Your task to perform on an android device: Go to ESPN.com Image 0: 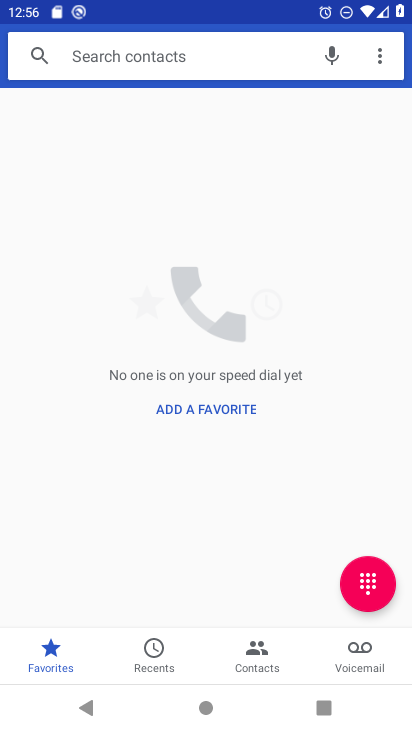
Step 0: press home button
Your task to perform on an android device: Go to ESPN.com Image 1: 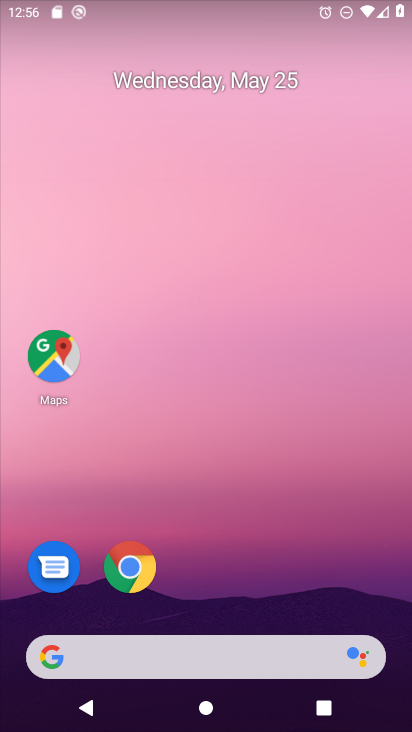
Step 1: click (131, 566)
Your task to perform on an android device: Go to ESPN.com Image 2: 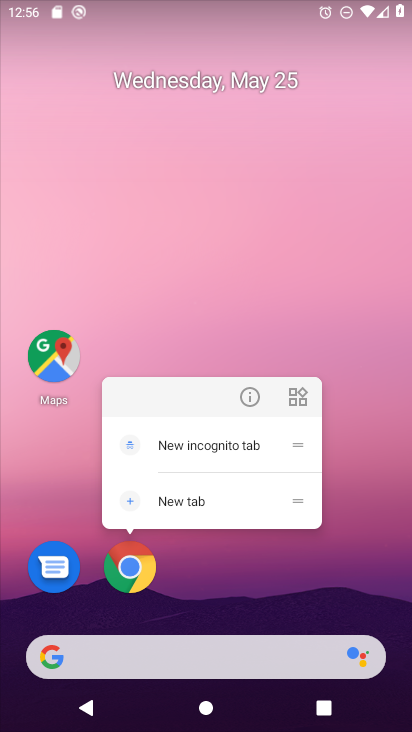
Step 2: click (126, 568)
Your task to perform on an android device: Go to ESPN.com Image 3: 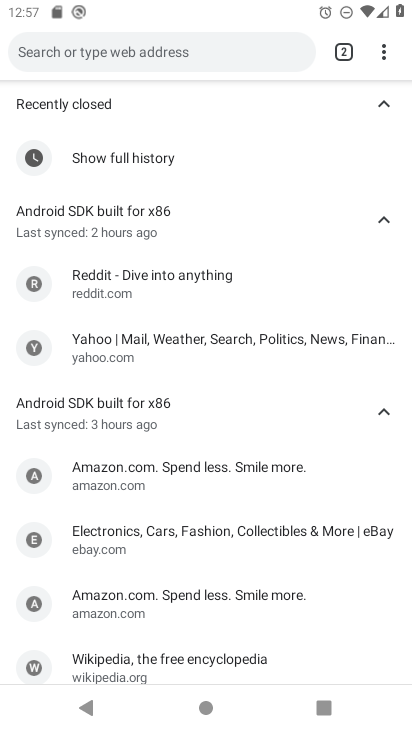
Step 3: click (178, 57)
Your task to perform on an android device: Go to ESPN.com Image 4: 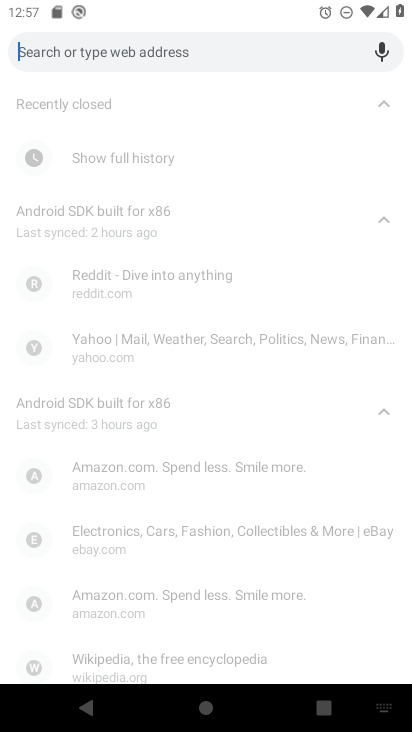
Step 4: type "ESPN.com"
Your task to perform on an android device: Go to ESPN.com Image 5: 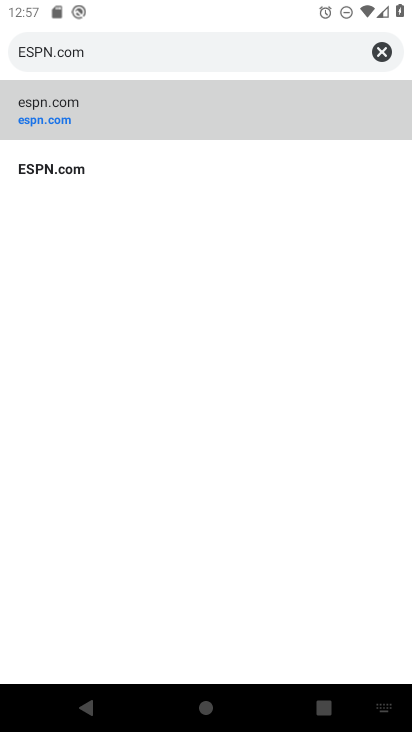
Step 5: click (34, 163)
Your task to perform on an android device: Go to ESPN.com Image 6: 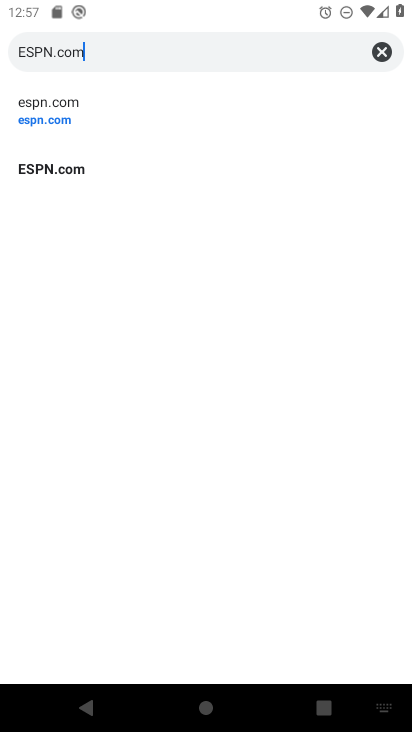
Step 6: click (53, 162)
Your task to perform on an android device: Go to ESPN.com Image 7: 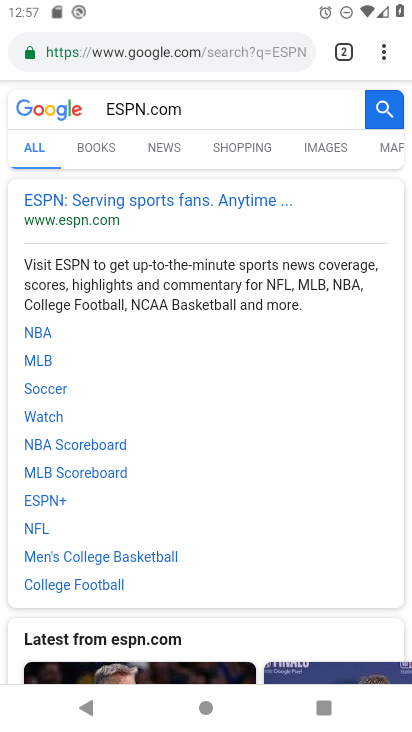
Step 7: task complete